Your task to perform on an android device: Show me recent news Image 0: 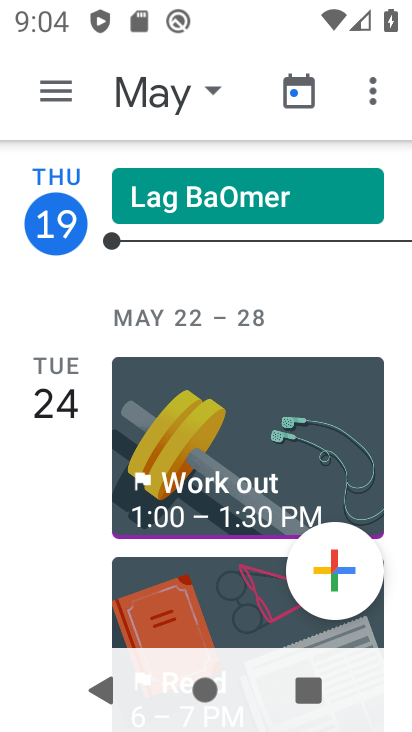
Step 0: press home button
Your task to perform on an android device: Show me recent news Image 1: 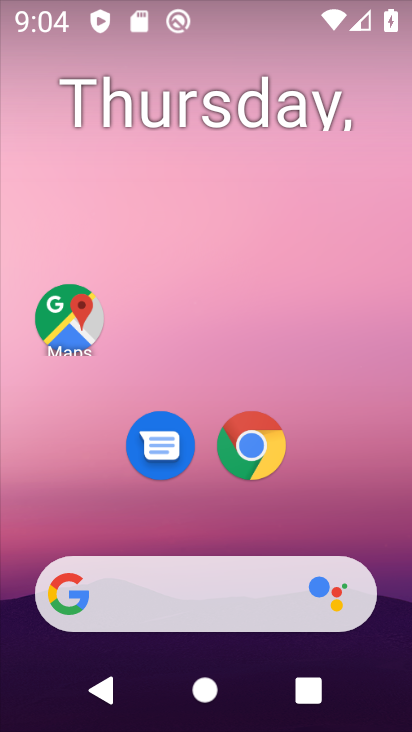
Step 1: drag from (252, 533) to (249, 93)
Your task to perform on an android device: Show me recent news Image 2: 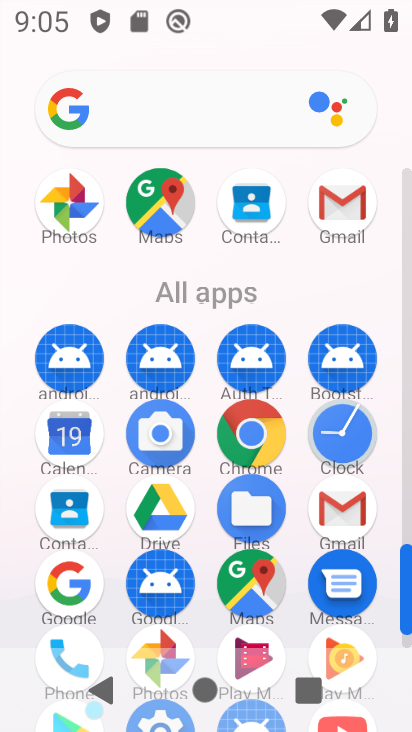
Step 2: click (53, 586)
Your task to perform on an android device: Show me recent news Image 3: 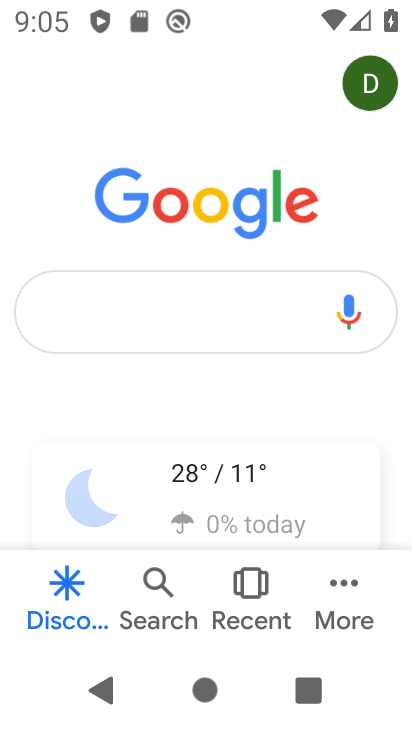
Step 3: task complete